Your task to perform on an android device: Show me the alarms in the clock app Image 0: 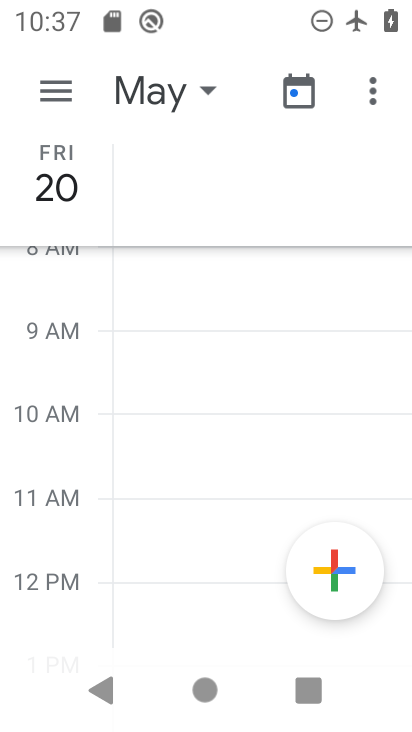
Step 0: press home button
Your task to perform on an android device: Show me the alarms in the clock app Image 1: 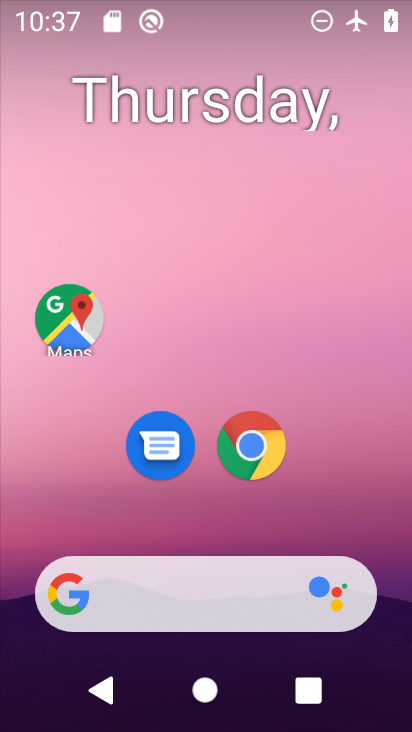
Step 1: drag from (174, 543) to (110, 16)
Your task to perform on an android device: Show me the alarms in the clock app Image 2: 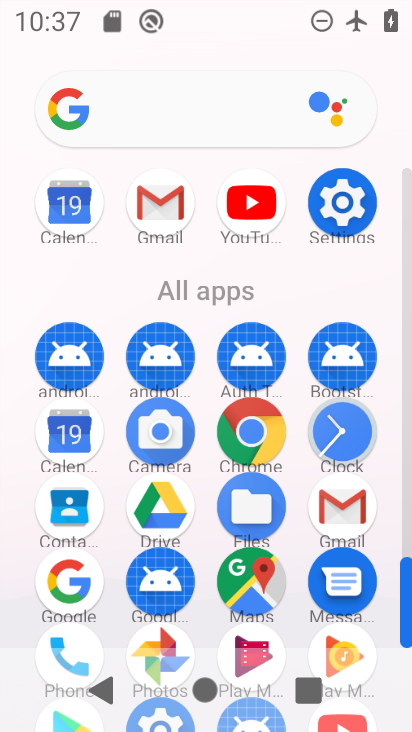
Step 2: click (332, 463)
Your task to perform on an android device: Show me the alarms in the clock app Image 3: 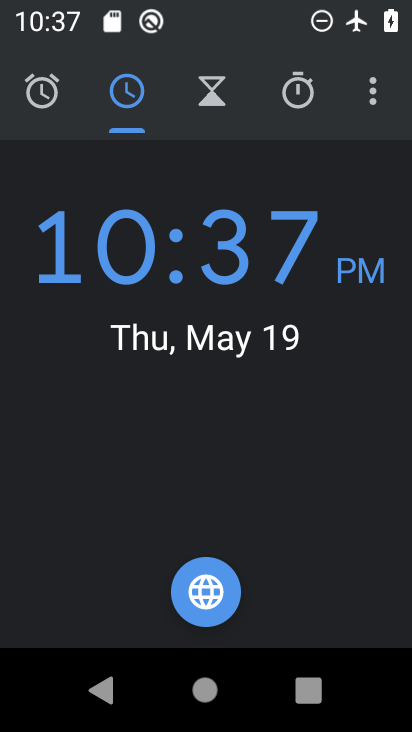
Step 3: click (11, 68)
Your task to perform on an android device: Show me the alarms in the clock app Image 4: 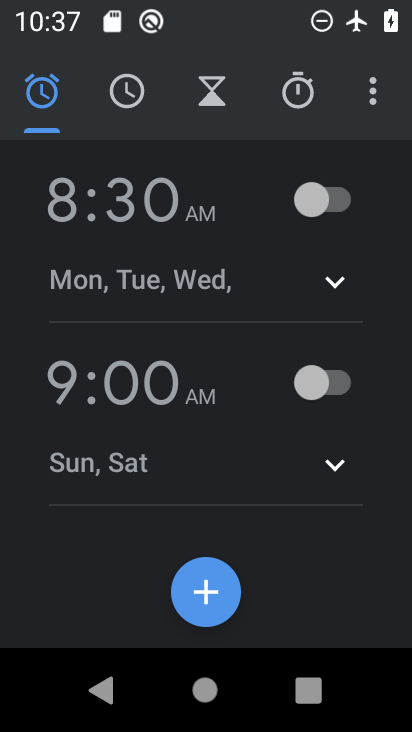
Step 4: task complete